Your task to perform on an android device: toggle show notifications on the lock screen Image 0: 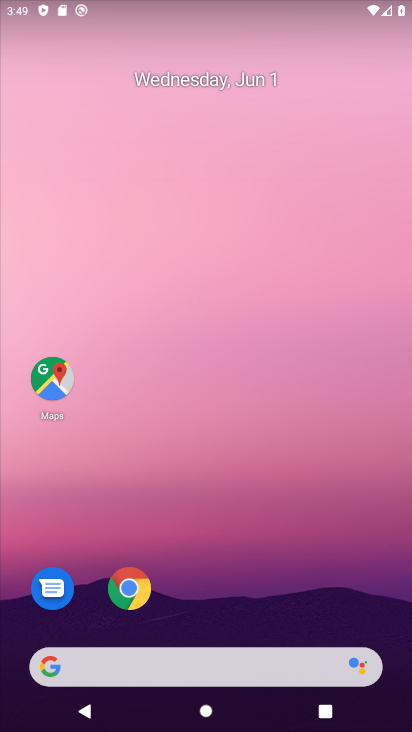
Step 0: drag from (220, 567) to (206, 202)
Your task to perform on an android device: toggle show notifications on the lock screen Image 1: 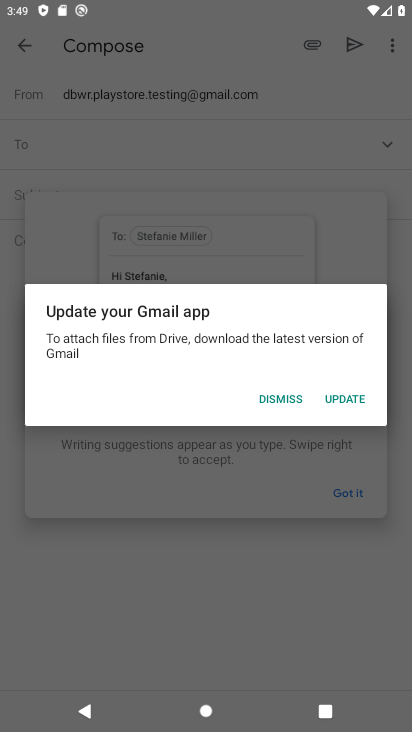
Step 1: press home button
Your task to perform on an android device: toggle show notifications on the lock screen Image 2: 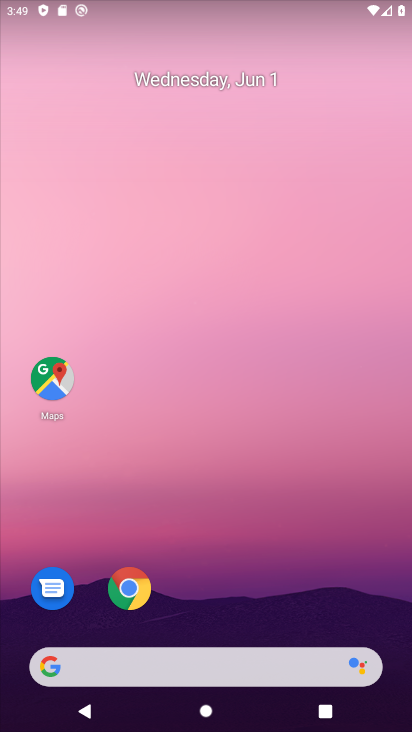
Step 2: drag from (288, 581) to (156, 177)
Your task to perform on an android device: toggle show notifications on the lock screen Image 3: 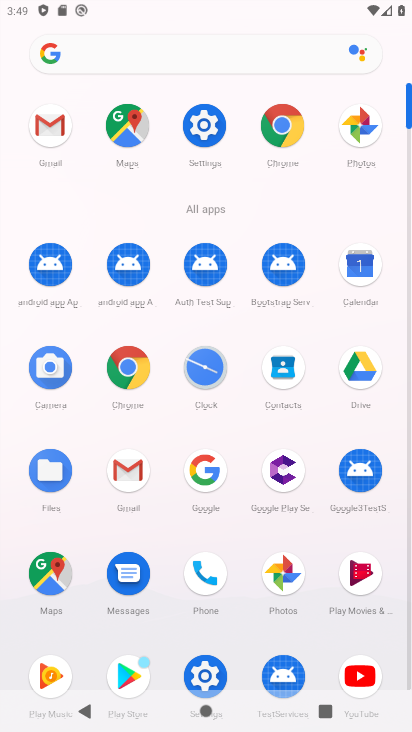
Step 3: click (203, 128)
Your task to perform on an android device: toggle show notifications on the lock screen Image 4: 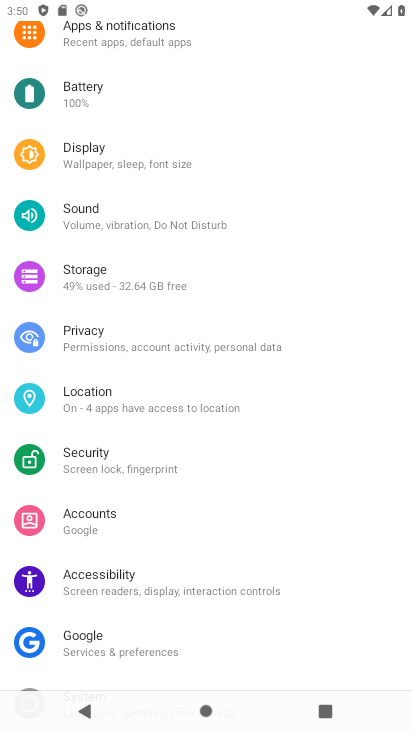
Step 4: click (124, 33)
Your task to perform on an android device: toggle show notifications on the lock screen Image 5: 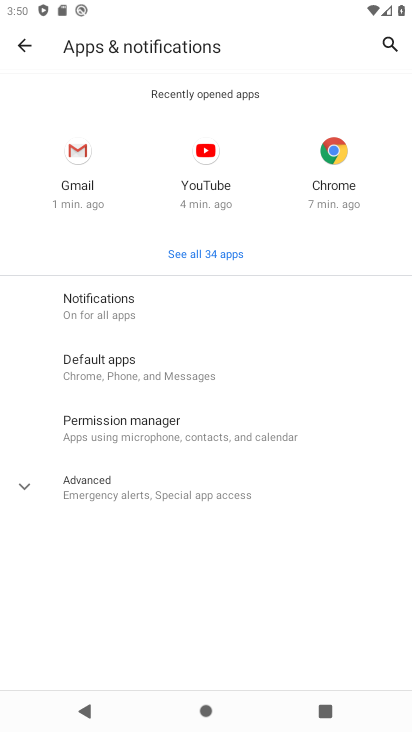
Step 5: click (161, 292)
Your task to perform on an android device: toggle show notifications on the lock screen Image 6: 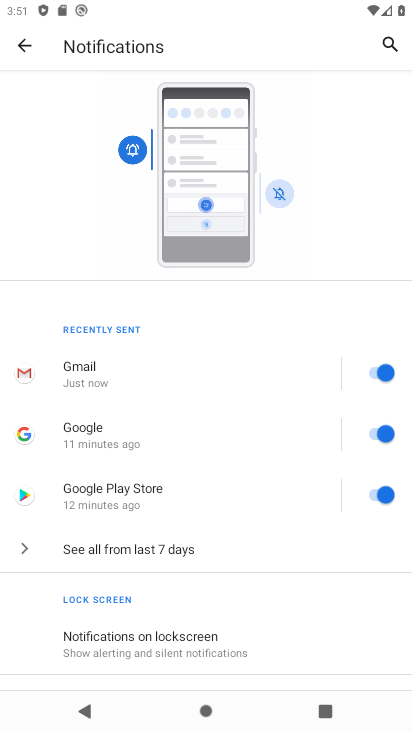
Step 6: drag from (185, 645) to (145, 347)
Your task to perform on an android device: toggle show notifications on the lock screen Image 7: 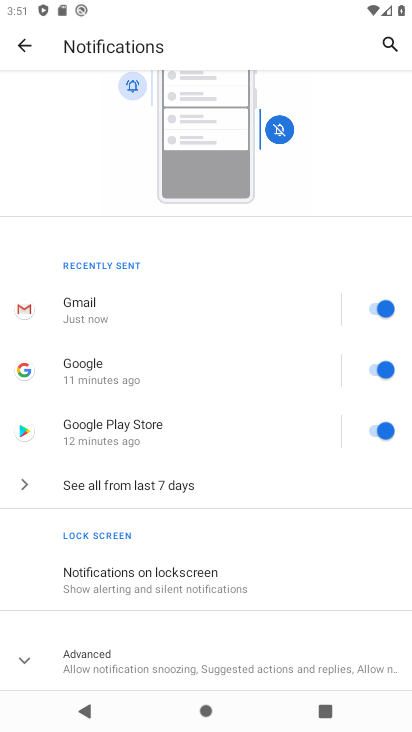
Step 7: click (206, 570)
Your task to perform on an android device: toggle show notifications on the lock screen Image 8: 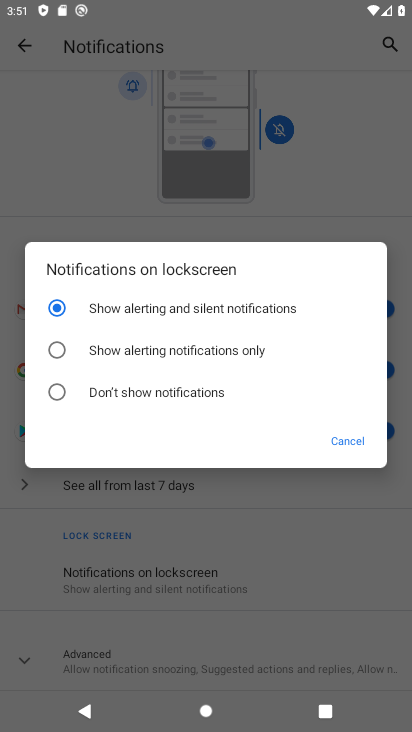
Step 8: click (205, 339)
Your task to perform on an android device: toggle show notifications on the lock screen Image 9: 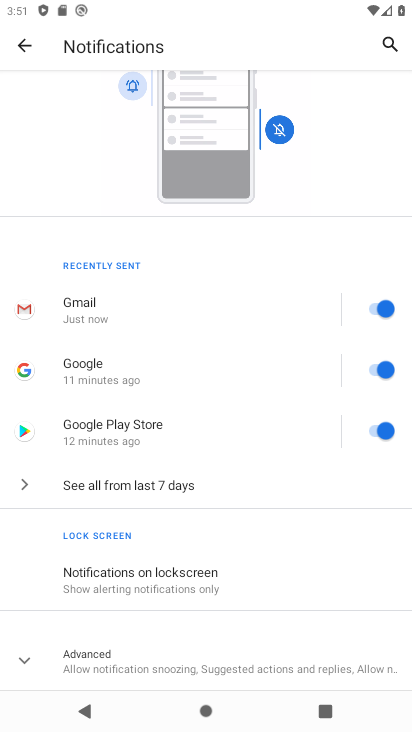
Step 9: task complete